Your task to perform on an android device: Open Amazon Image 0: 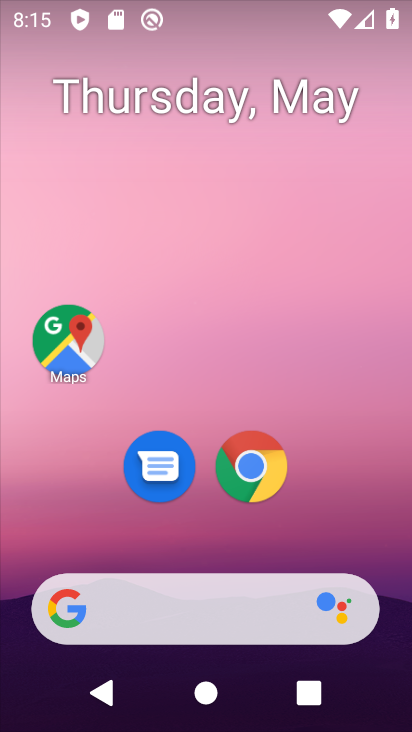
Step 0: click (249, 469)
Your task to perform on an android device: Open Amazon Image 1: 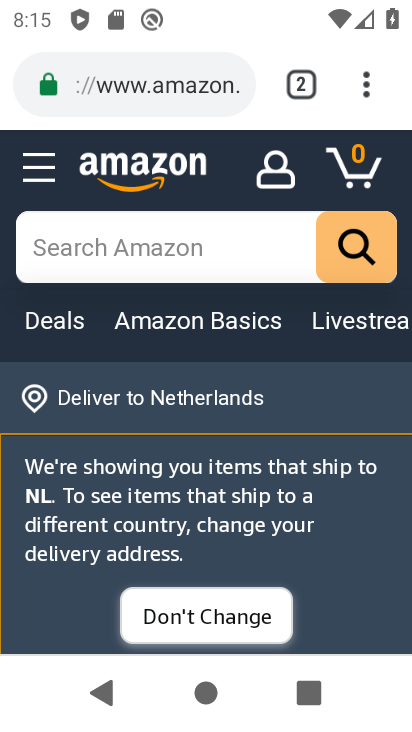
Step 1: task complete